Your task to perform on an android device: toggle location history Image 0: 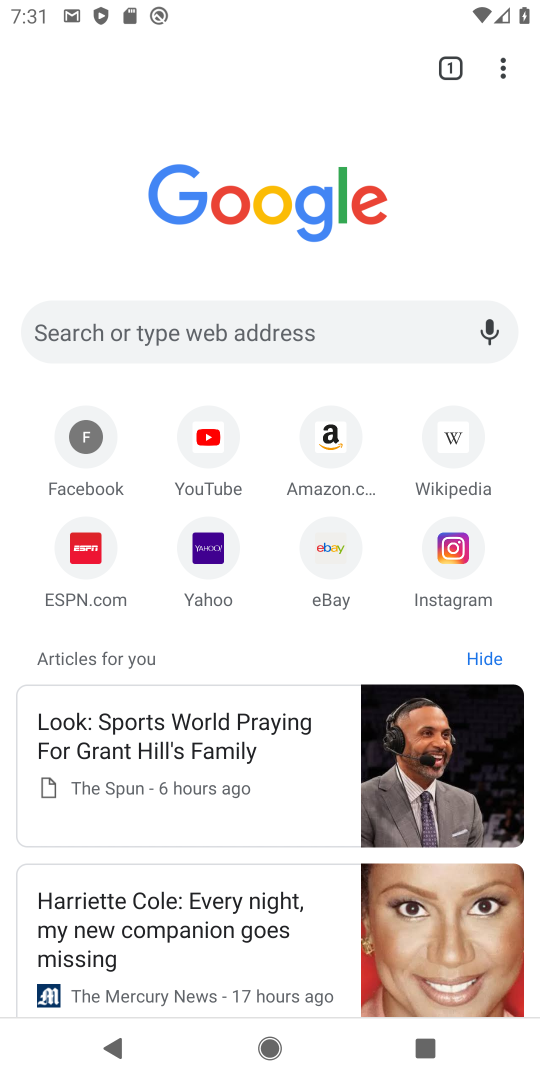
Step 0: press home button
Your task to perform on an android device: toggle location history Image 1: 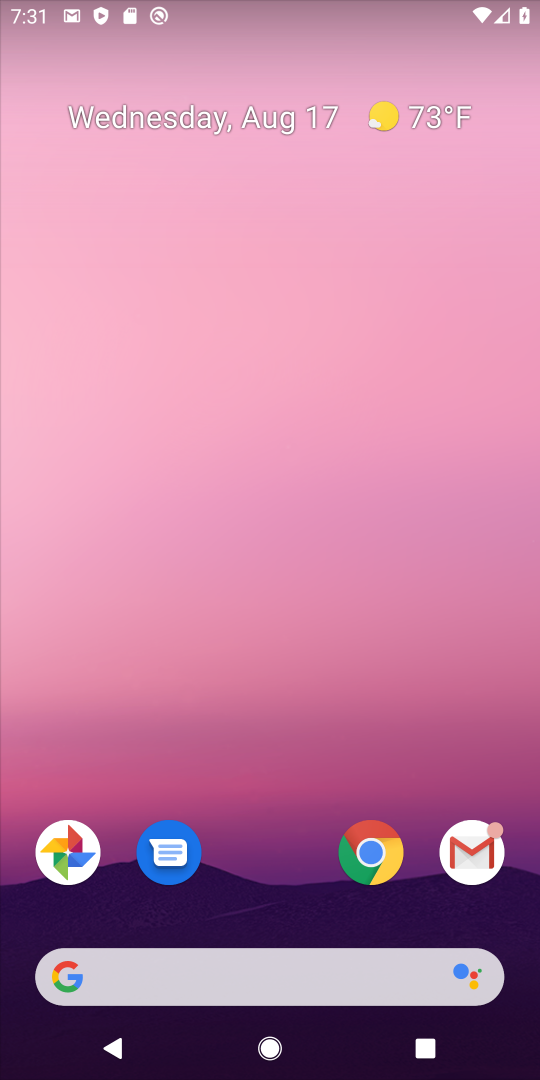
Step 1: drag from (349, 695) to (6, 704)
Your task to perform on an android device: toggle location history Image 2: 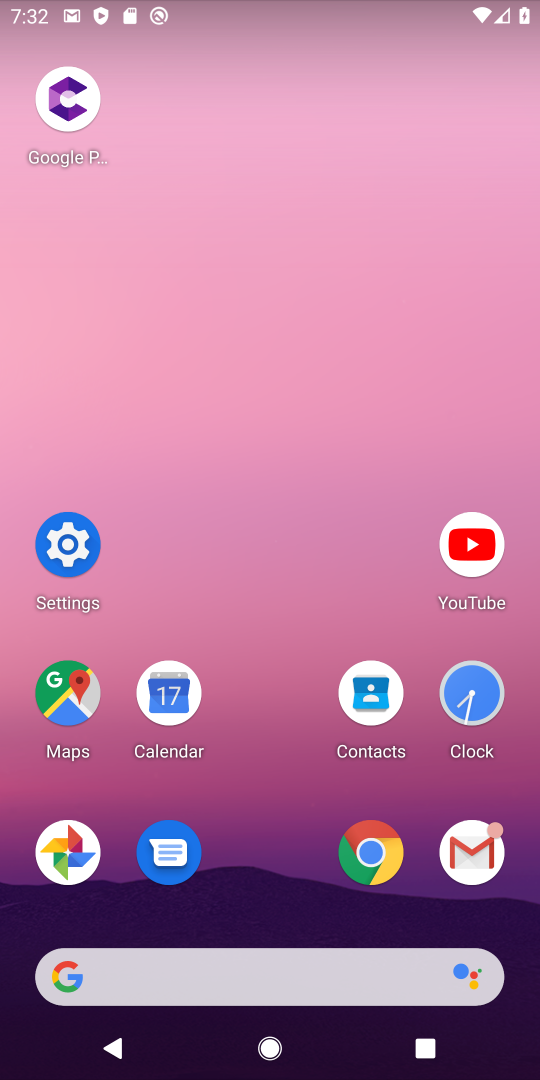
Step 2: click (55, 702)
Your task to perform on an android device: toggle location history Image 3: 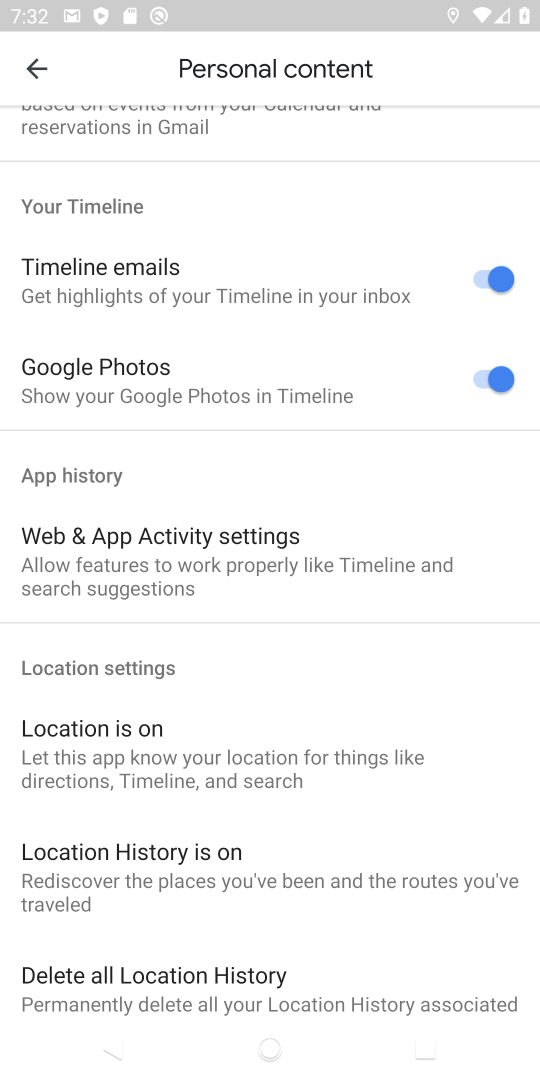
Step 3: click (135, 851)
Your task to perform on an android device: toggle location history Image 4: 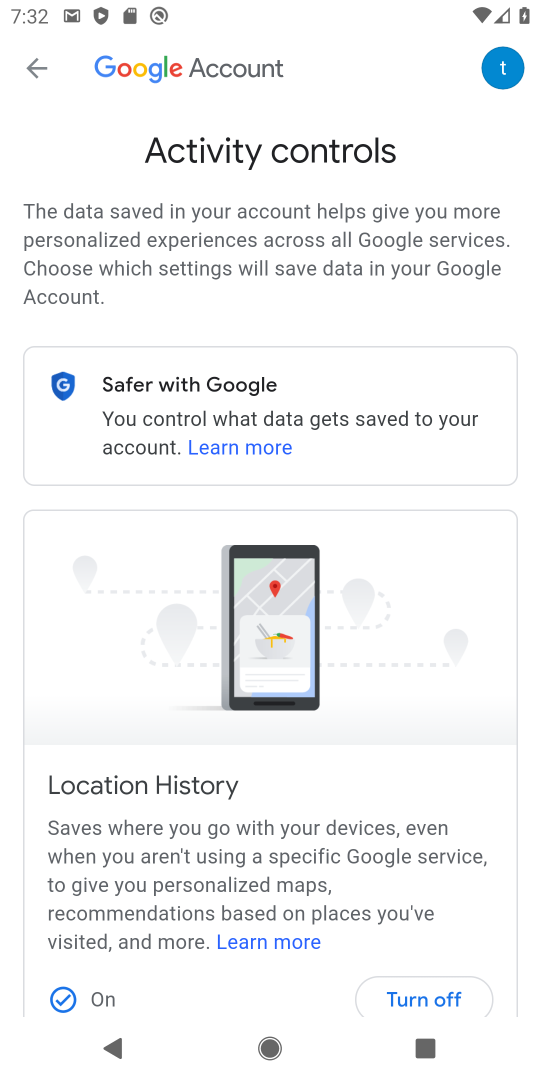
Step 4: click (422, 988)
Your task to perform on an android device: toggle location history Image 5: 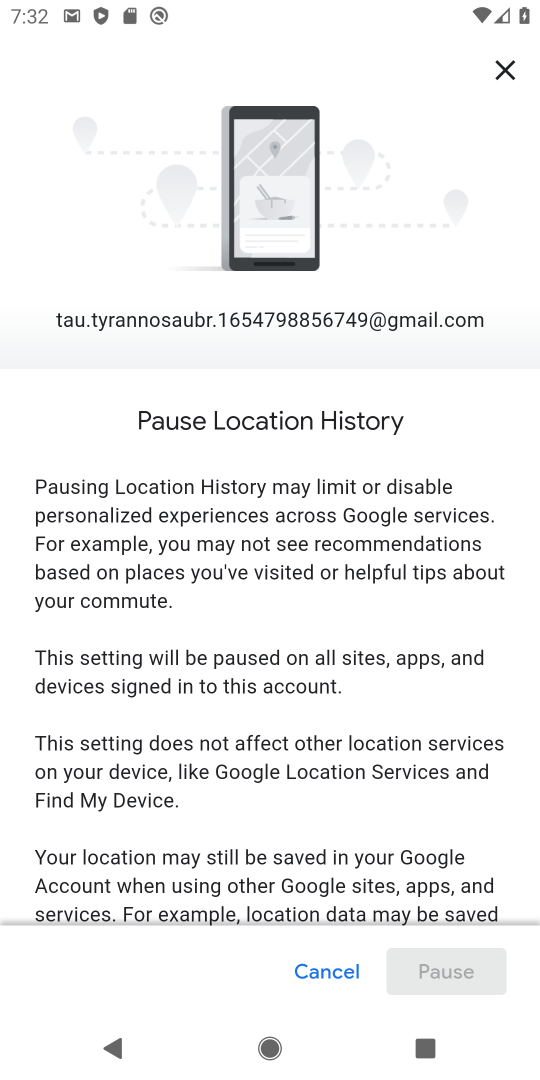
Step 5: drag from (411, 835) to (393, 328)
Your task to perform on an android device: toggle location history Image 6: 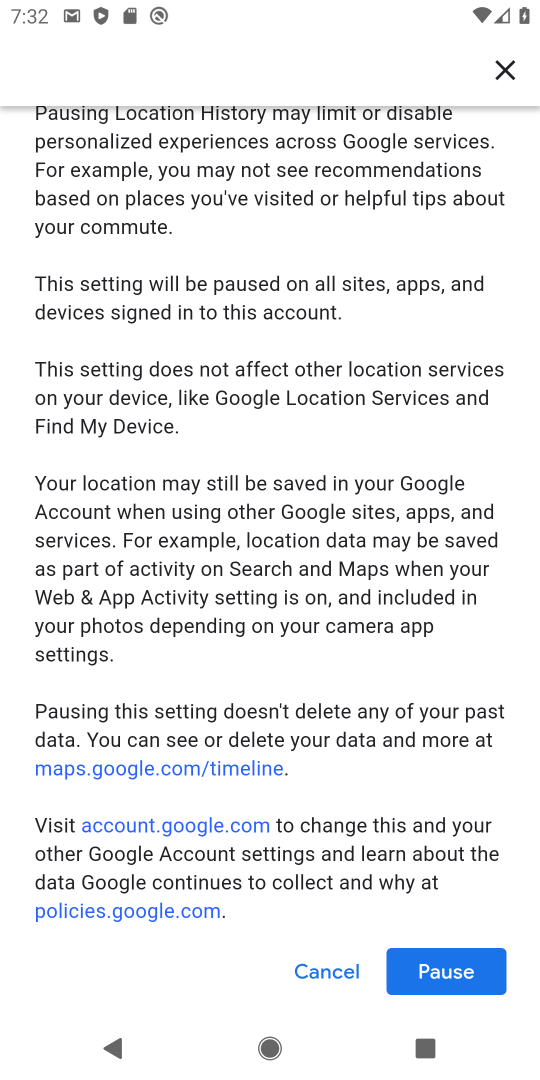
Step 6: click (433, 975)
Your task to perform on an android device: toggle location history Image 7: 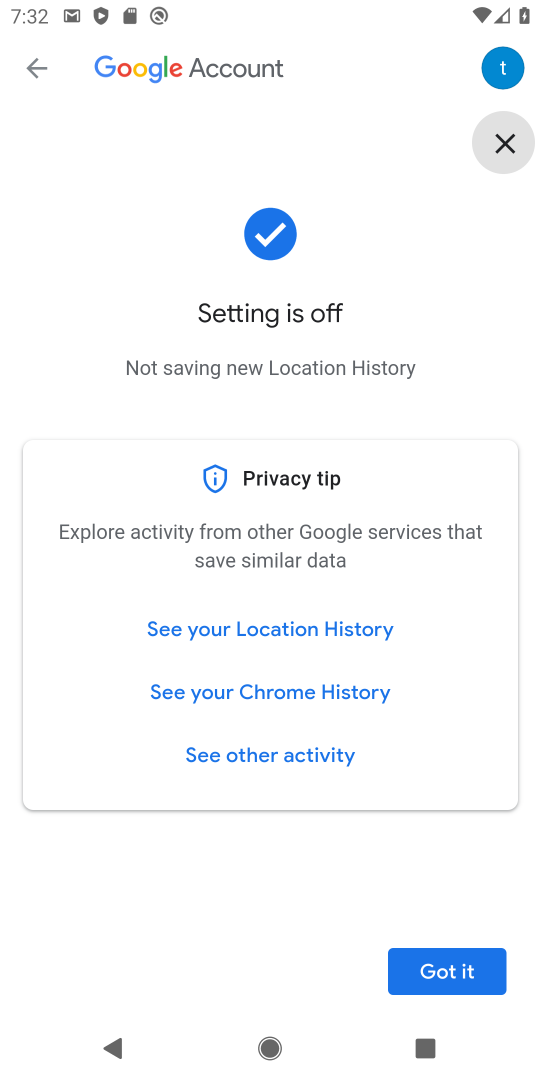
Step 7: click (451, 974)
Your task to perform on an android device: toggle location history Image 8: 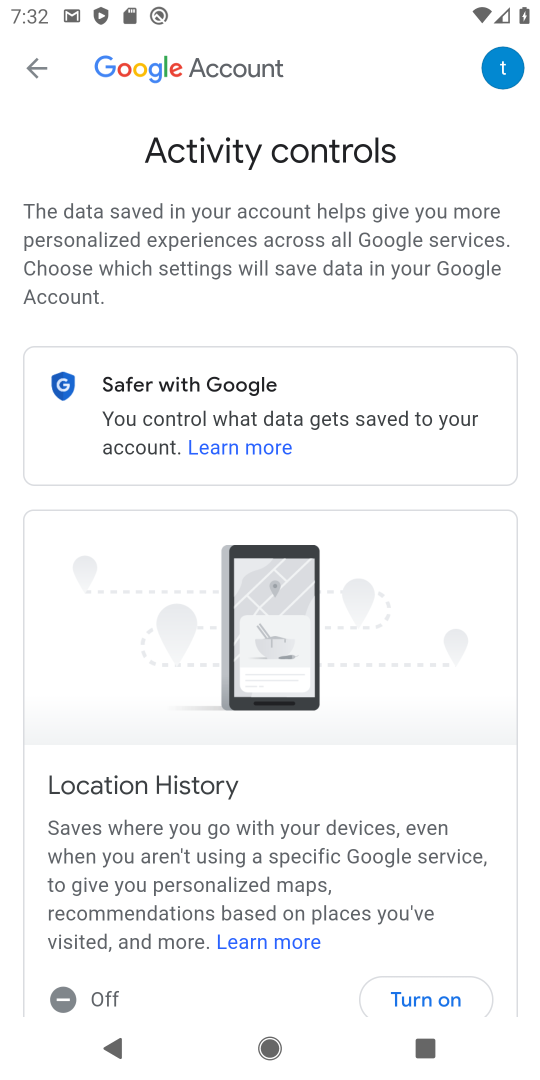
Step 8: task complete